Your task to perform on an android device: Open eBay Image 0: 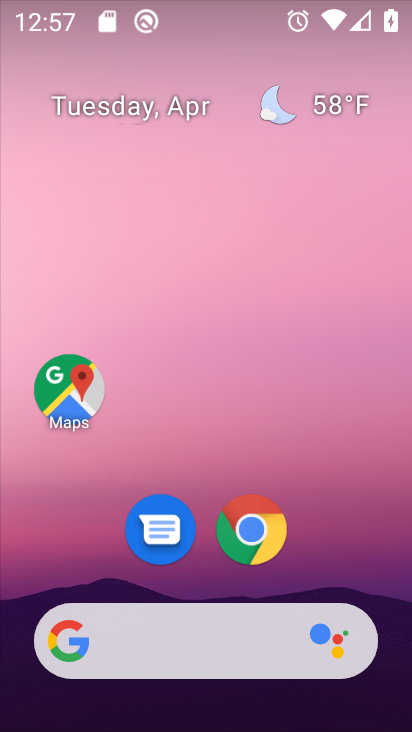
Step 0: drag from (382, 620) to (323, 88)
Your task to perform on an android device: Open eBay Image 1: 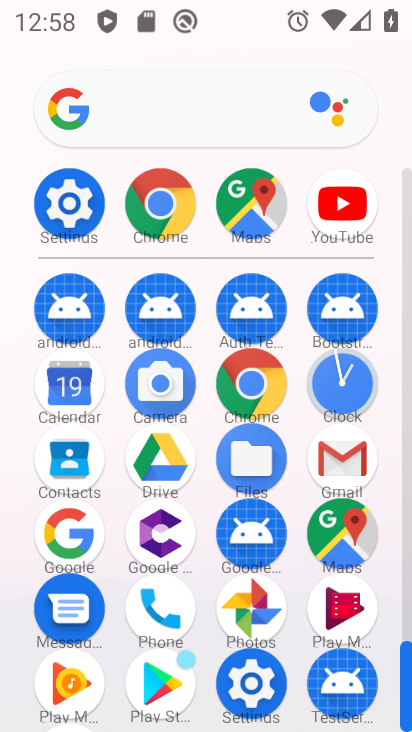
Step 1: click (164, 220)
Your task to perform on an android device: Open eBay Image 2: 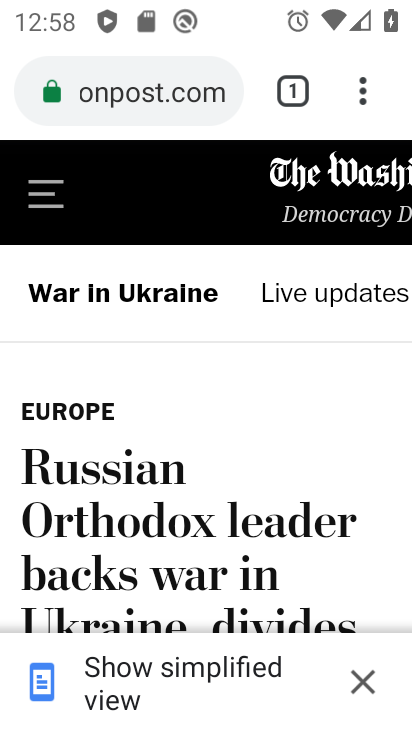
Step 2: press back button
Your task to perform on an android device: Open eBay Image 3: 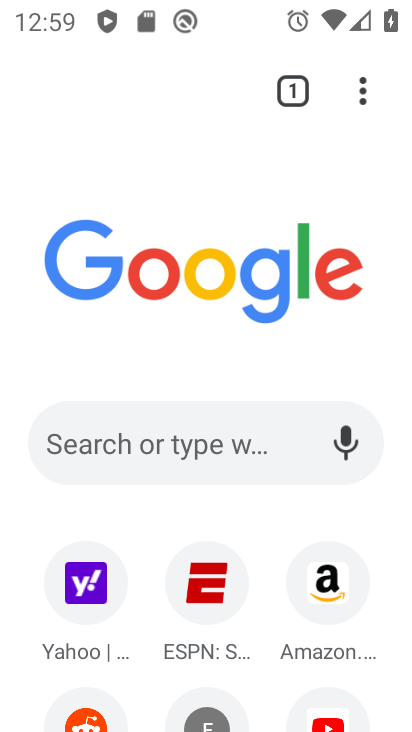
Step 3: drag from (263, 645) to (187, 166)
Your task to perform on an android device: Open eBay Image 4: 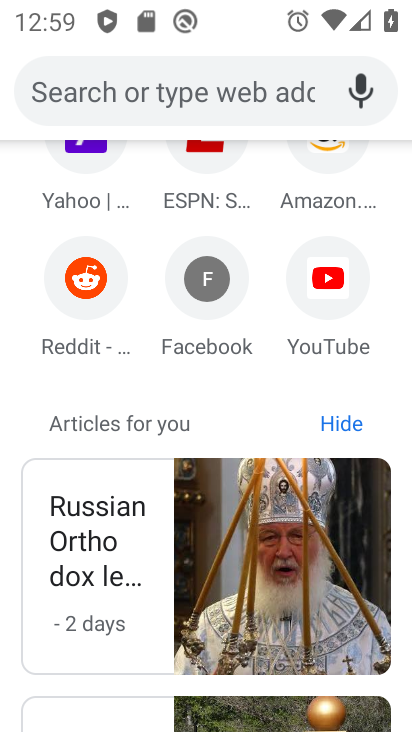
Step 4: drag from (269, 249) to (271, 682)
Your task to perform on an android device: Open eBay Image 5: 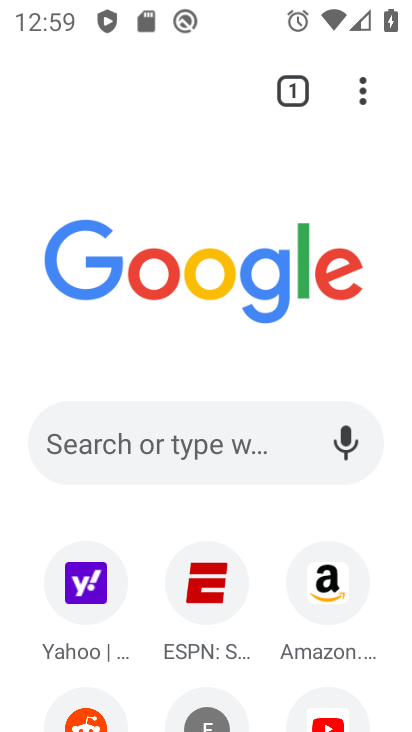
Step 5: click (201, 463)
Your task to perform on an android device: Open eBay Image 6: 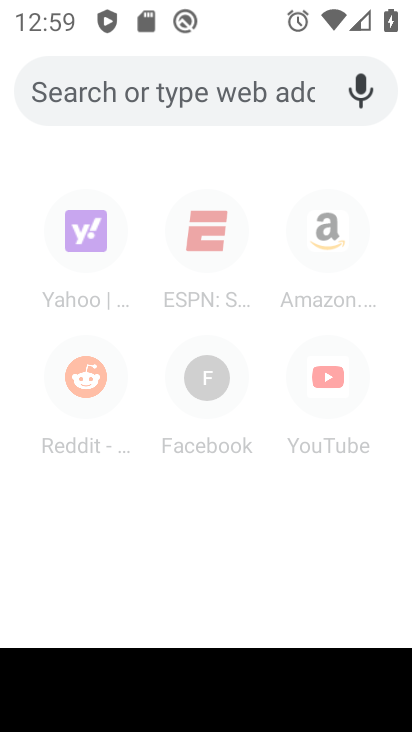
Step 6: type "ebay"
Your task to perform on an android device: Open eBay Image 7: 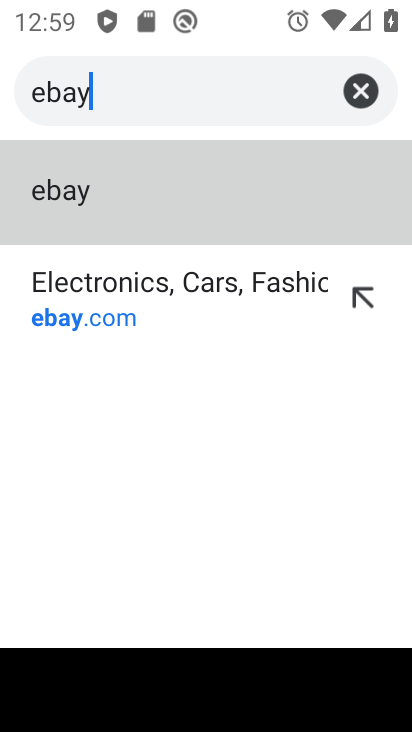
Step 7: click (269, 186)
Your task to perform on an android device: Open eBay Image 8: 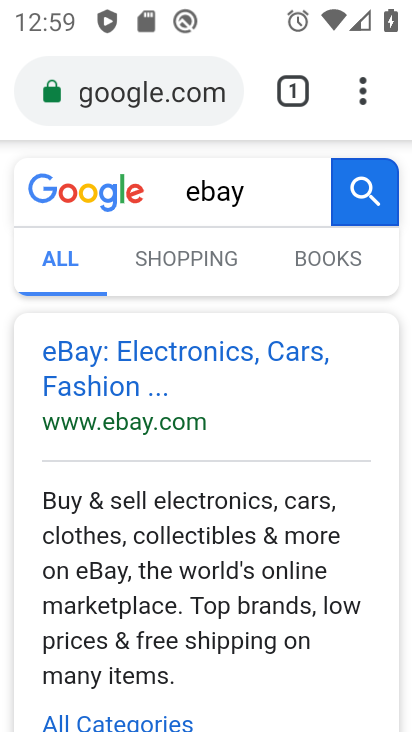
Step 8: task complete